Your task to perform on an android device: Search for vegetarian restaurants on Maps Image 0: 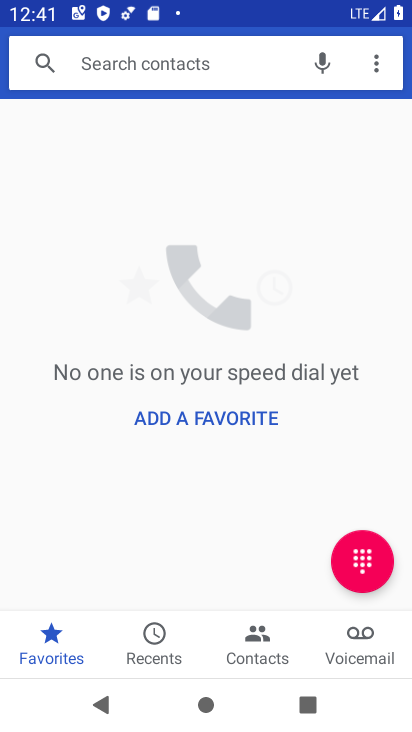
Step 0: press home button
Your task to perform on an android device: Search for vegetarian restaurants on Maps Image 1: 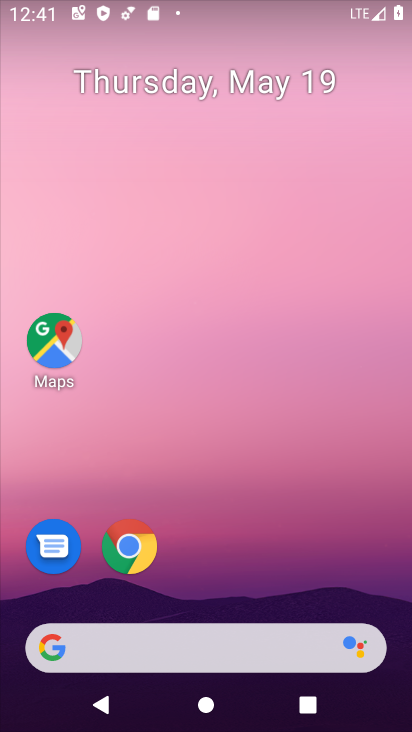
Step 1: click (58, 333)
Your task to perform on an android device: Search for vegetarian restaurants on Maps Image 2: 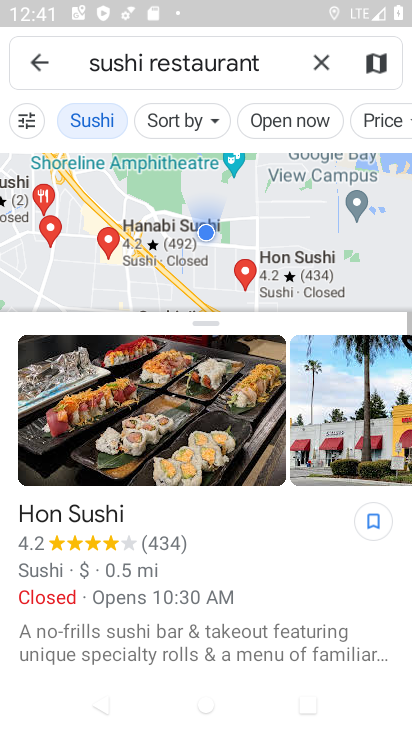
Step 2: click (317, 76)
Your task to perform on an android device: Search for vegetarian restaurants on Maps Image 3: 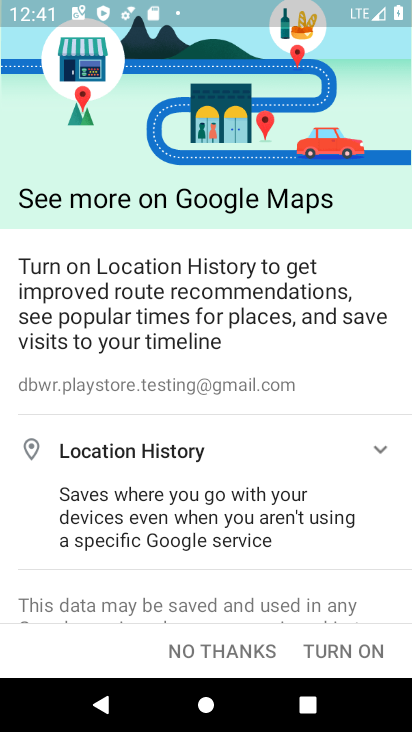
Step 3: click (356, 671)
Your task to perform on an android device: Search for vegetarian restaurants on Maps Image 4: 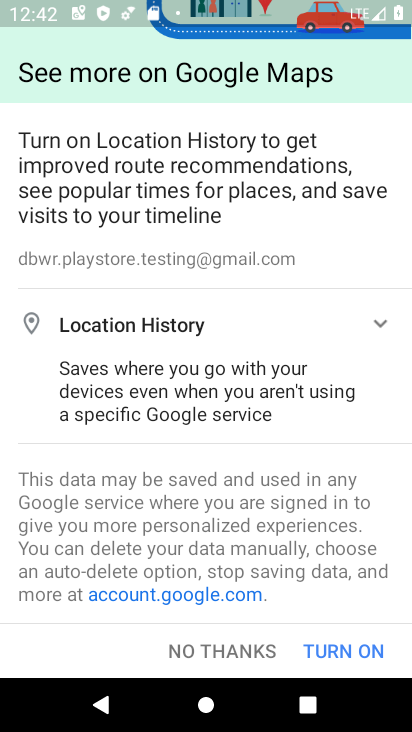
Step 4: click (357, 655)
Your task to perform on an android device: Search for vegetarian restaurants on Maps Image 5: 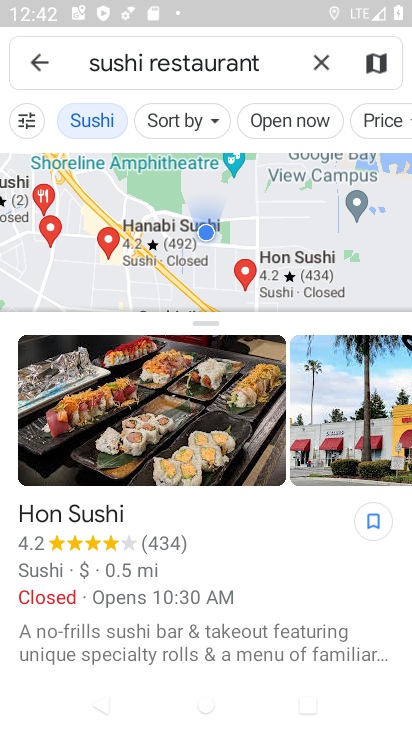
Step 5: click (321, 64)
Your task to perform on an android device: Search for vegetarian restaurants on Maps Image 6: 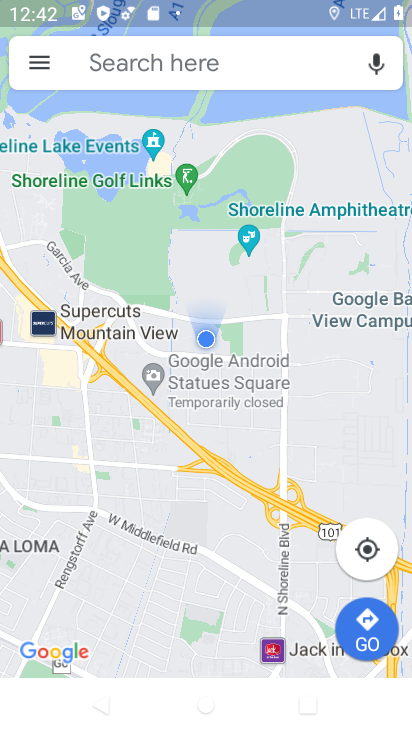
Step 6: click (131, 71)
Your task to perform on an android device: Search for vegetarian restaurants on Maps Image 7: 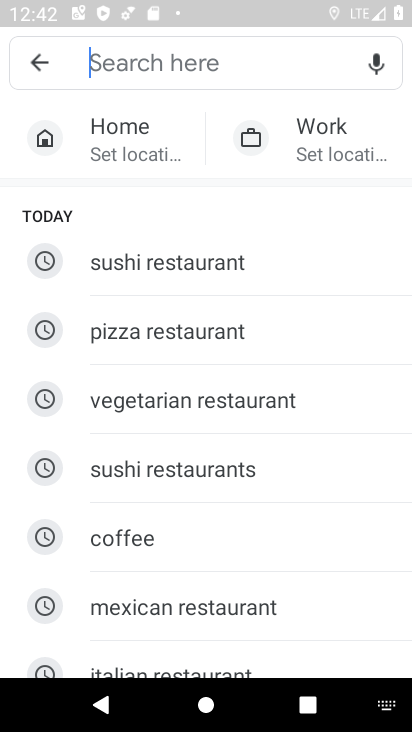
Step 7: click (144, 413)
Your task to perform on an android device: Search for vegetarian restaurants on Maps Image 8: 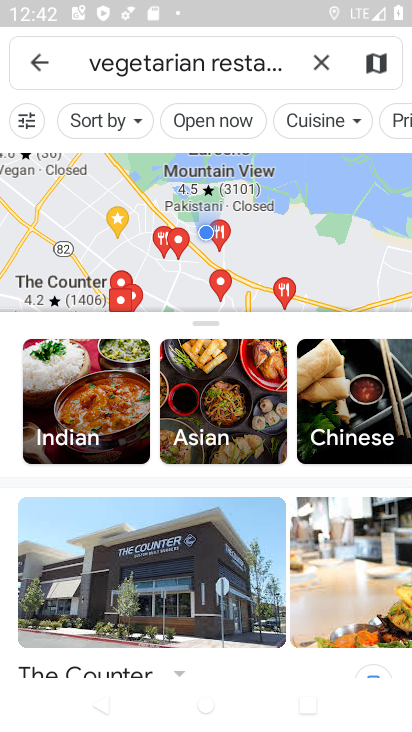
Step 8: task complete